Your task to perform on an android device: clear all cookies in the chrome app Image 0: 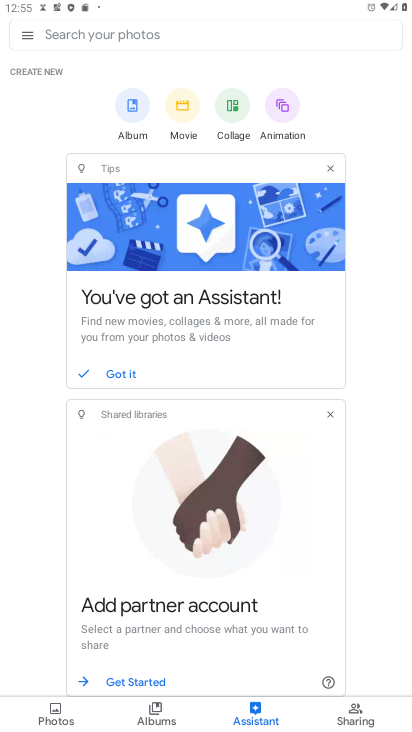
Step 0: press home button
Your task to perform on an android device: clear all cookies in the chrome app Image 1: 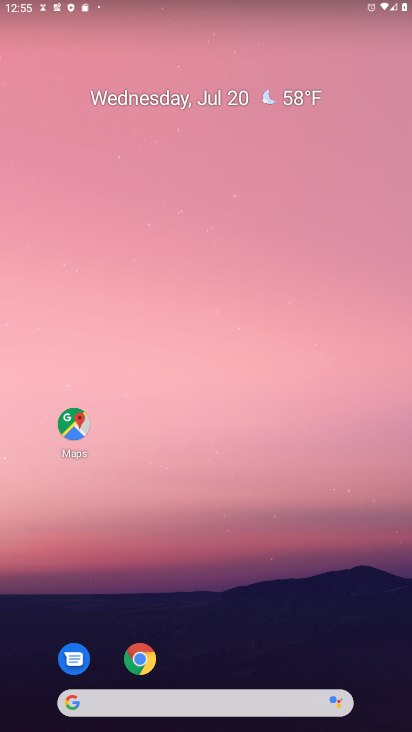
Step 1: click (141, 656)
Your task to perform on an android device: clear all cookies in the chrome app Image 2: 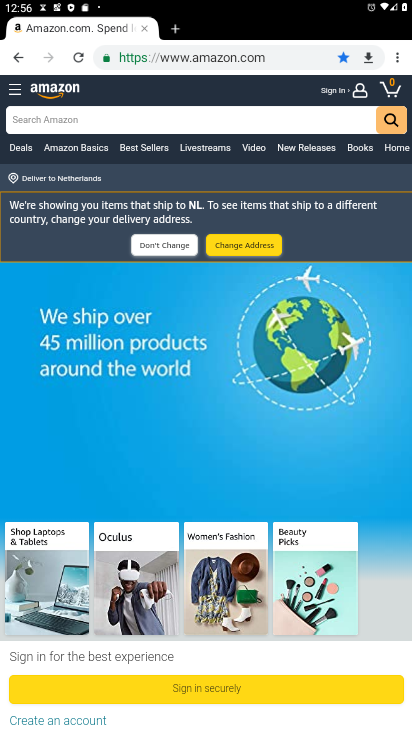
Step 2: click (394, 53)
Your task to perform on an android device: clear all cookies in the chrome app Image 3: 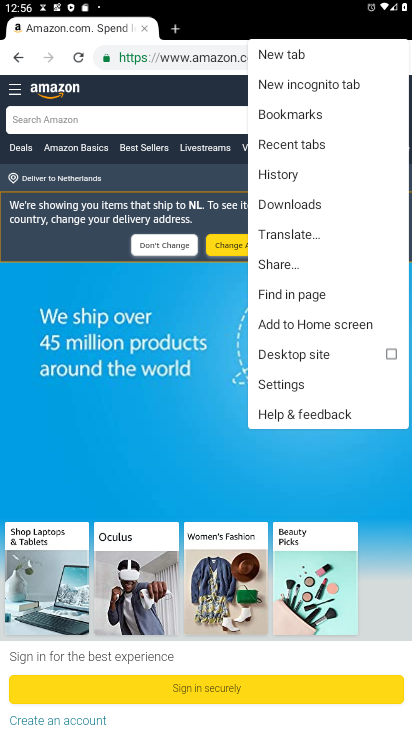
Step 3: click (301, 171)
Your task to perform on an android device: clear all cookies in the chrome app Image 4: 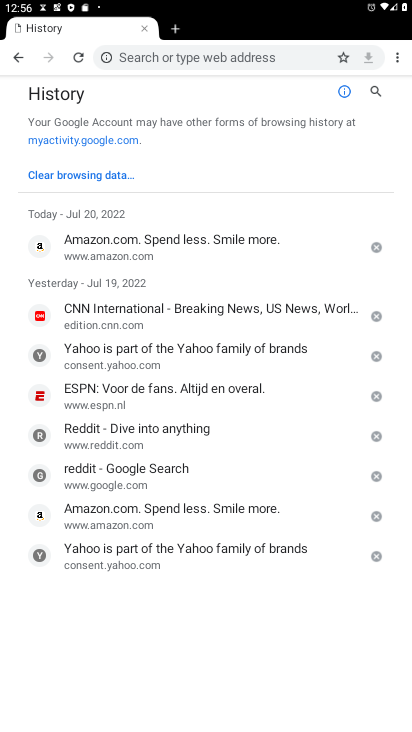
Step 4: click (108, 175)
Your task to perform on an android device: clear all cookies in the chrome app Image 5: 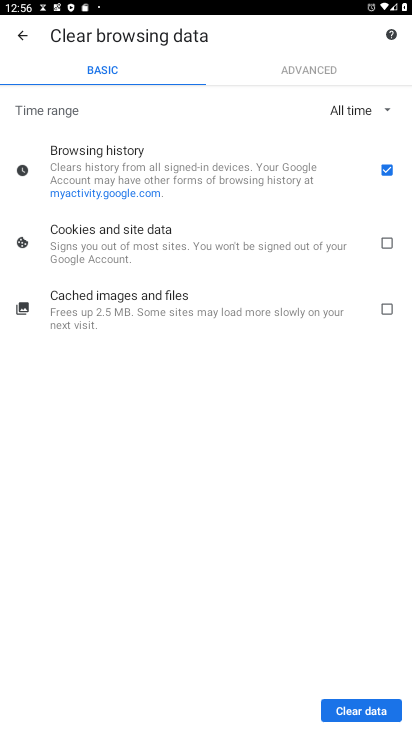
Step 5: click (381, 243)
Your task to perform on an android device: clear all cookies in the chrome app Image 6: 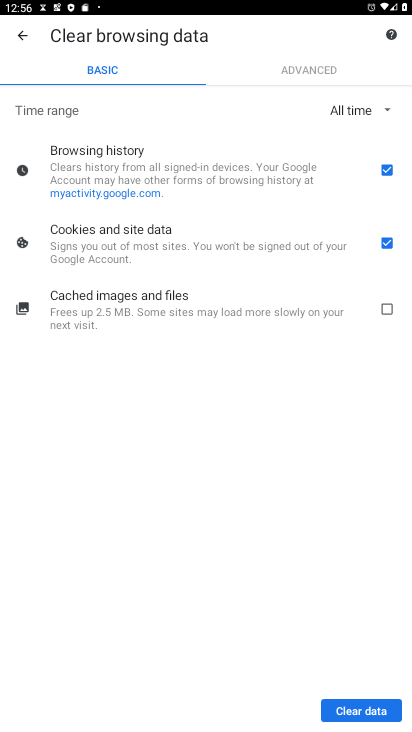
Step 6: click (387, 167)
Your task to perform on an android device: clear all cookies in the chrome app Image 7: 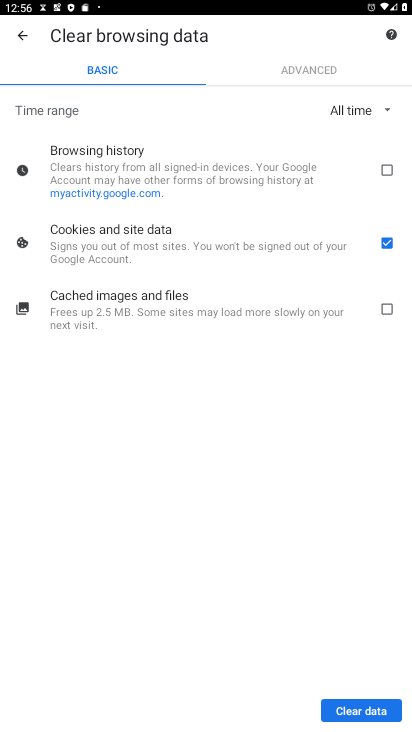
Step 7: click (390, 305)
Your task to perform on an android device: clear all cookies in the chrome app Image 8: 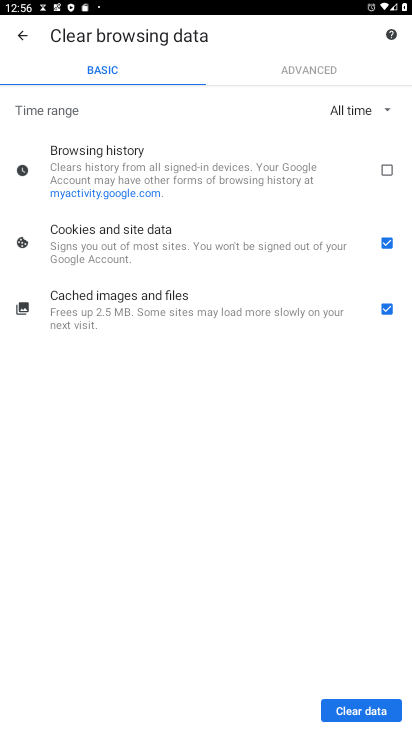
Step 8: click (388, 302)
Your task to perform on an android device: clear all cookies in the chrome app Image 9: 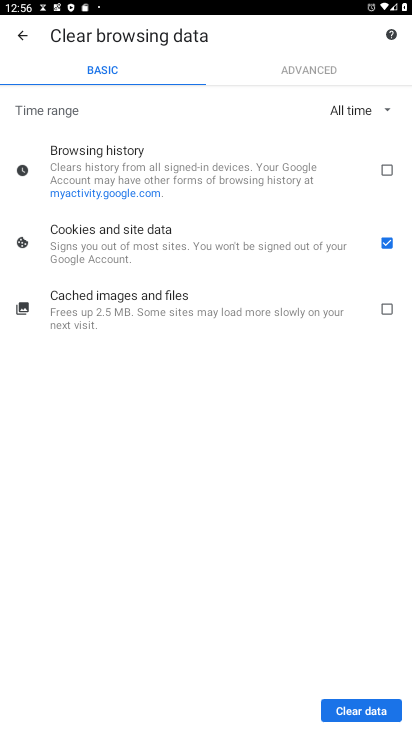
Step 9: click (370, 711)
Your task to perform on an android device: clear all cookies in the chrome app Image 10: 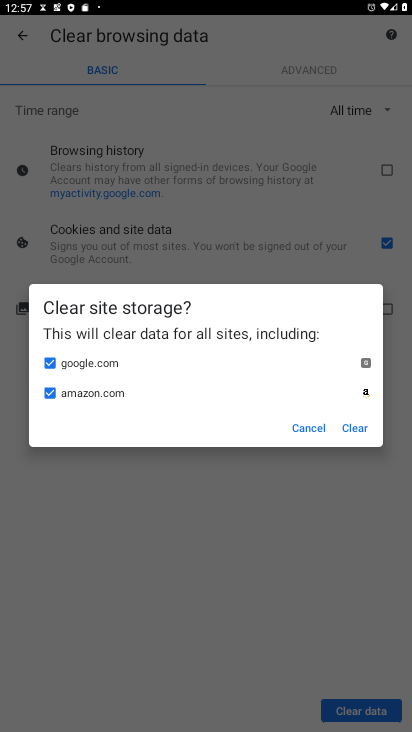
Step 10: click (353, 422)
Your task to perform on an android device: clear all cookies in the chrome app Image 11: 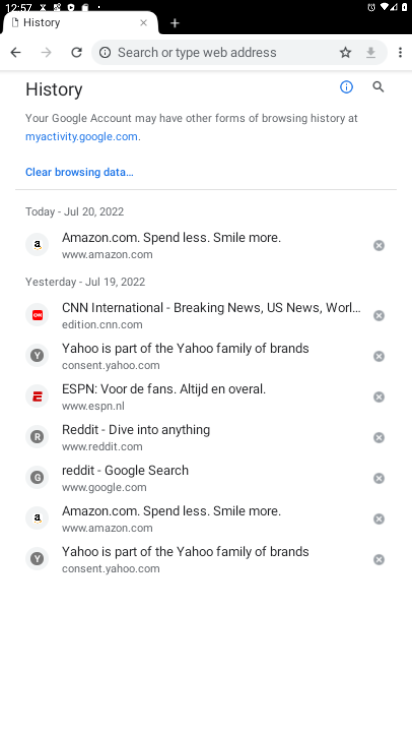
Step 11: task complete